Your task to perform on an android device: turn off wifi Image 0: 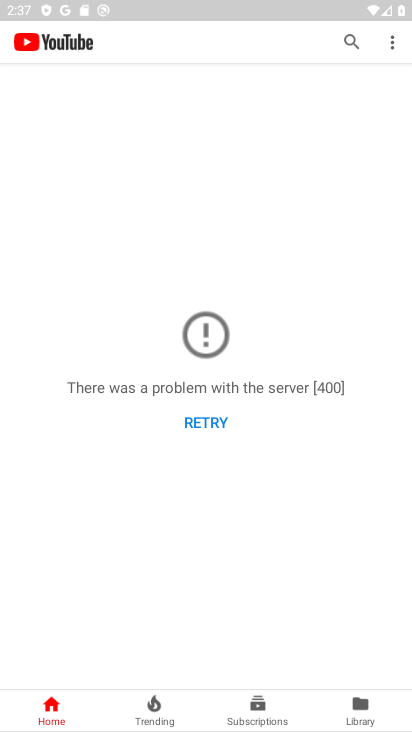
Step 0: press back button
Your task to perform on an android device: turn off wifi Image 1: 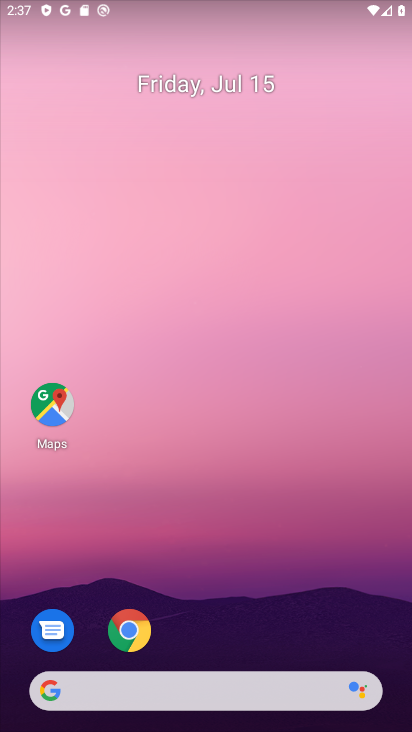
Step 1: drag from (238, 677) to (218, 356)
Your task to perform on an android device: turn off wifi Image 2: 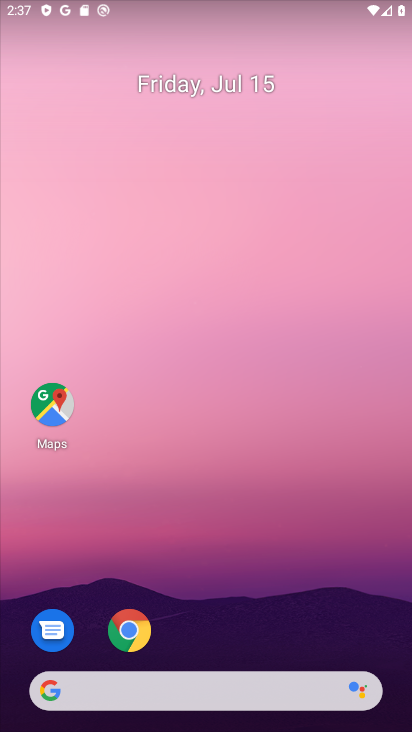
Step 2: drag from (200, 685) to (173, 468)
Your task to perform on an android device: turn off wifi Image 3: 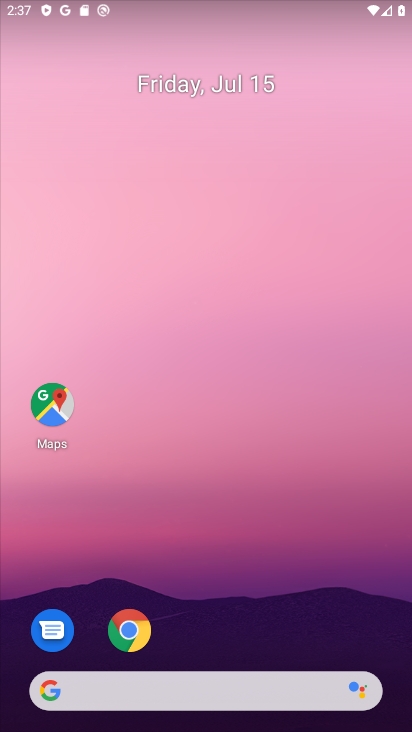
Step 3: drag from (176, 695) to (136, 220)
Your task to perform on an android device: turn off wifi Image 4: 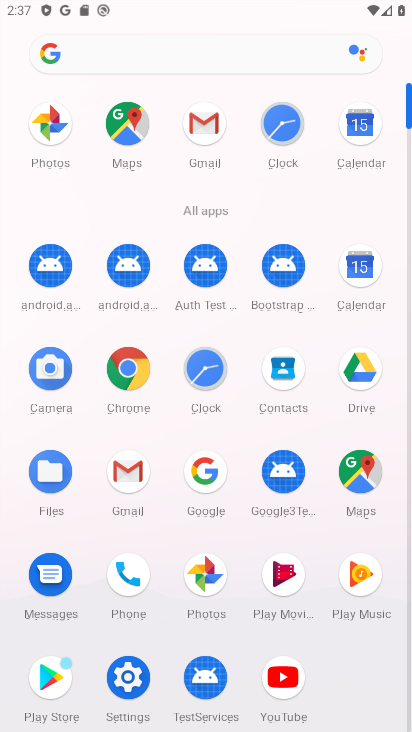
Step 4: click (119, 684)
Your task to perform on an android device: turn off wifi Image 5: 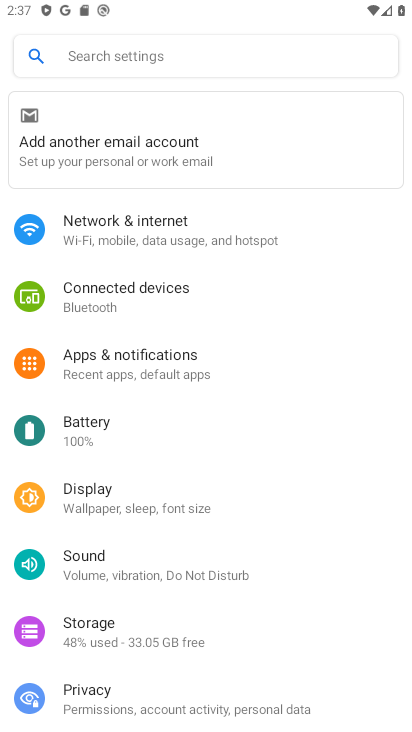
Step 5: click (136, 216)
Your task to perform on an android device: turn off wifi Image 6: 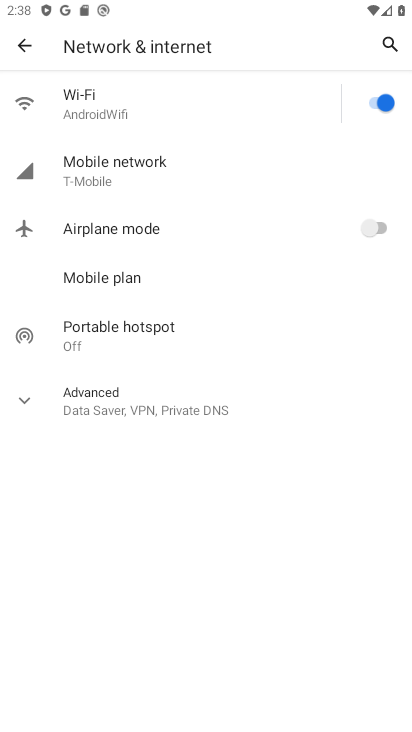
Step 6: click (377, 96)
Your task to perform on an android device: turn off wifi Image 7: 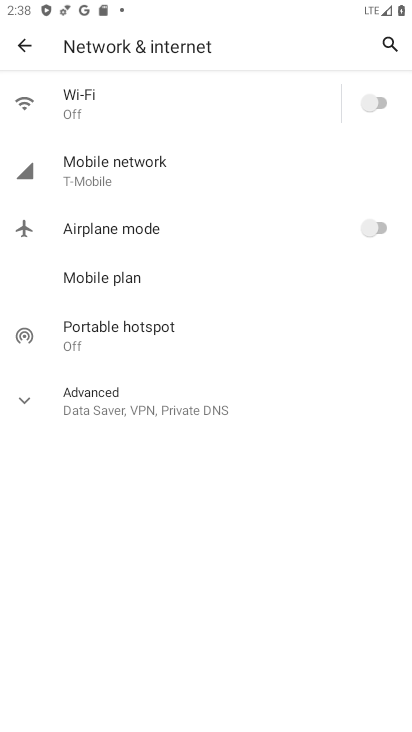
Step 7: task complete